Your task to perform on an android device: stop showing notifications on the lock screen Image 0: 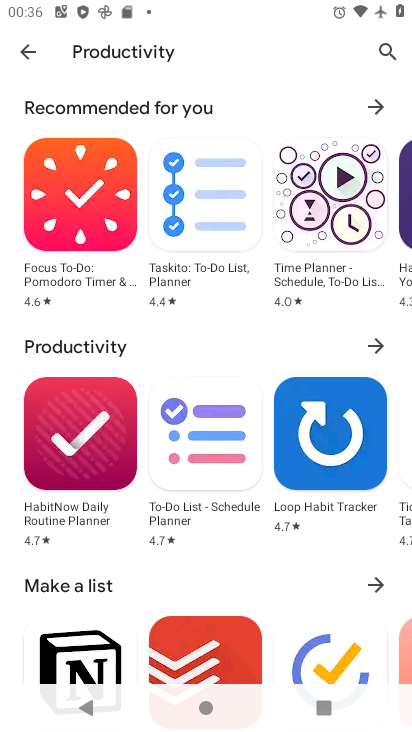
Step 0: press home button
Your task to perform on an android device: stop showing notifications on the lock screen Image 1: 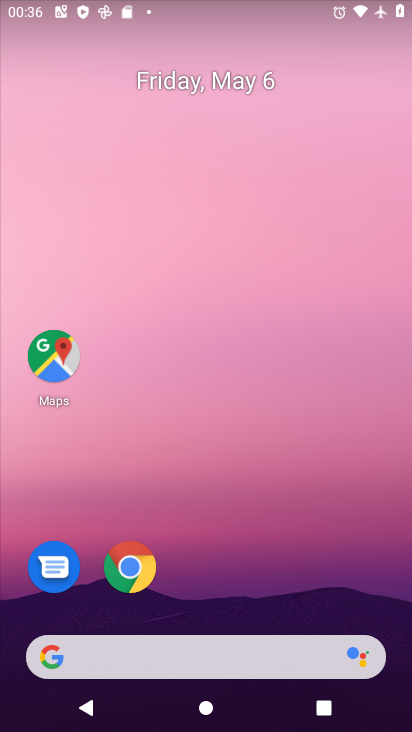
Step 1: drag from (191, 590) to (175, 205)
Your task to perform on an android device: stop showing notifications on the lock screen Image 2: 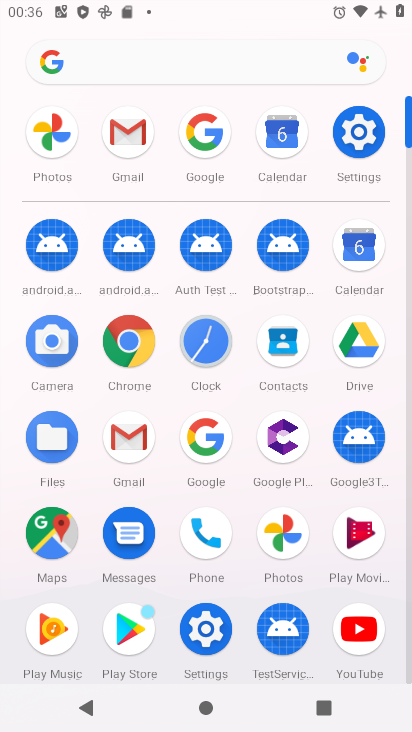
Step 2: click (373, 131)
Your task to perform on an android device: stop showing notifications on the lock screen Image 3: 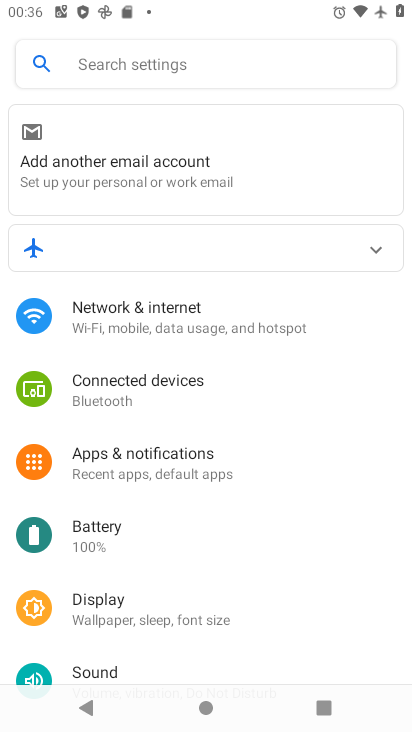
Step 3: click (192, 466)
Your task to perform on an android device: stop showing notifications on the lock screen Image 4: 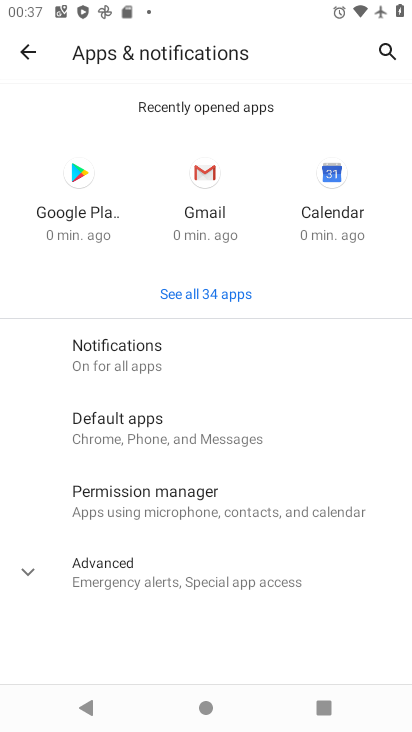
Step 4: click (122, 365)
Your task to perform on an android device: stop showing notifications on the lock screen Image 5: 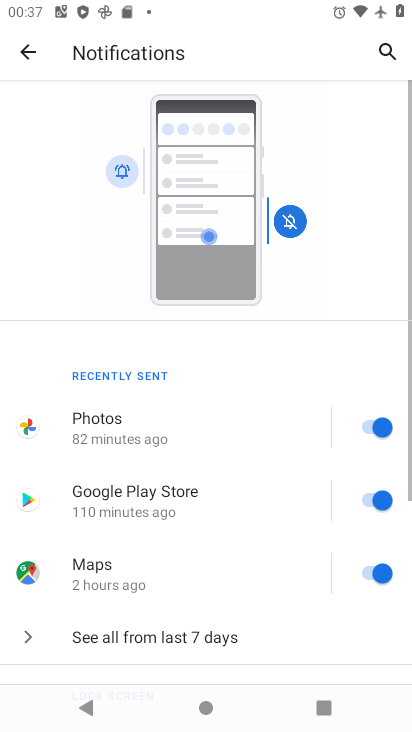
Step 5: drag from (218, 617) to (210, 299)
Your task to perform on an android device: stop showing notifications on the lock screen Image 6: 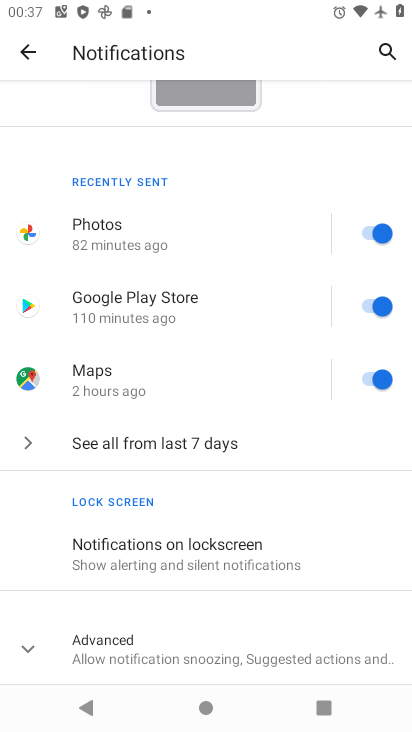
Step 6: click (155, 569)
Your task to perform on an android device: stop showing notifications on the lock screen Image 7: 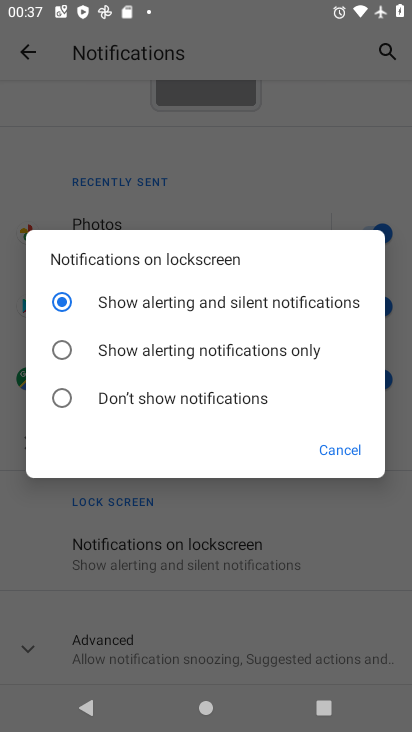
Step 7: click (87, 393)
Your task to perform on an android device: stop showing notifications on the lock screen Image 8: 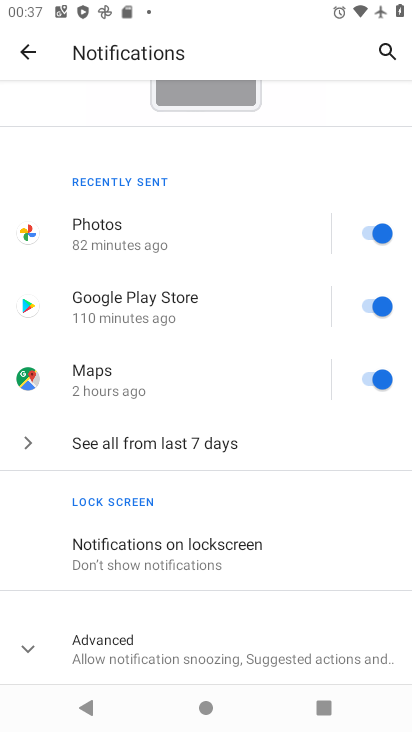
Step 8: task complete